Your task to perform on an android device: see tabs open on other devices in the chrome app Image 0: 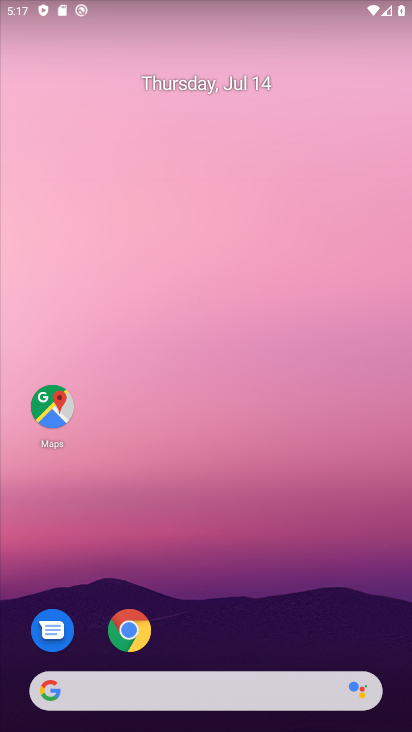
Step 0: press home button
Your task to perform on an android device: see tabs open on other devices in the chrome app Image 1: 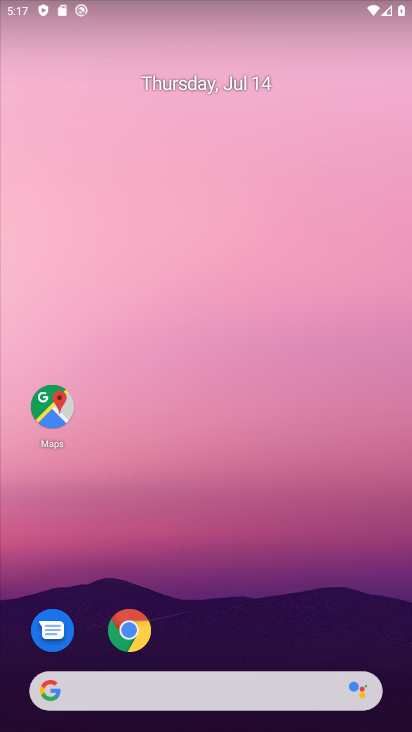
Step 1: drag from (231, 650) to (233, 375)
Your task to perform on an android device: see tabs open on other devices in the chrome app Image 2: 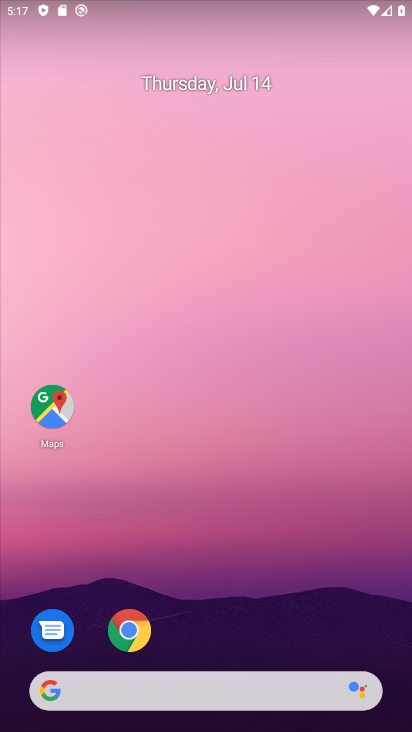
Step 2: drag from (244, 641) to (336, 92)
Your task to perform on an android device: see tabs open on other devices in the chrome app Image 3: 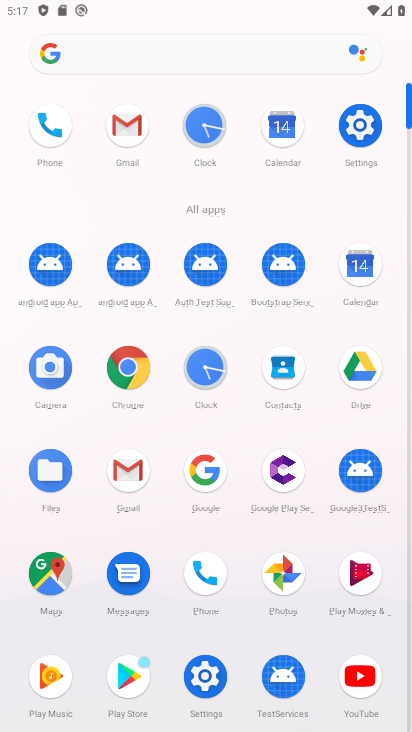
Step 3: click (116, 380)
Your task to perform on an android device: see tabs open on other devices in the chrome app Image 4: 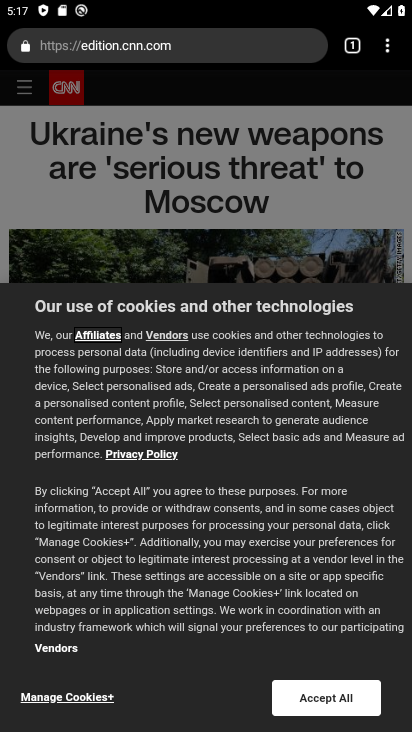
Step 4: task complete